Your task to perform on an android device: open a bookmark in the chrome app Image 0: 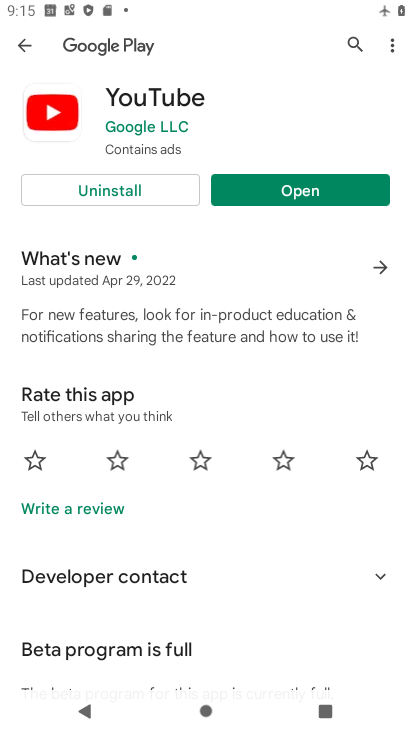
Step 0: press home button
Your task to perform on an android device: open a bookmark in the chrome app Image 1: 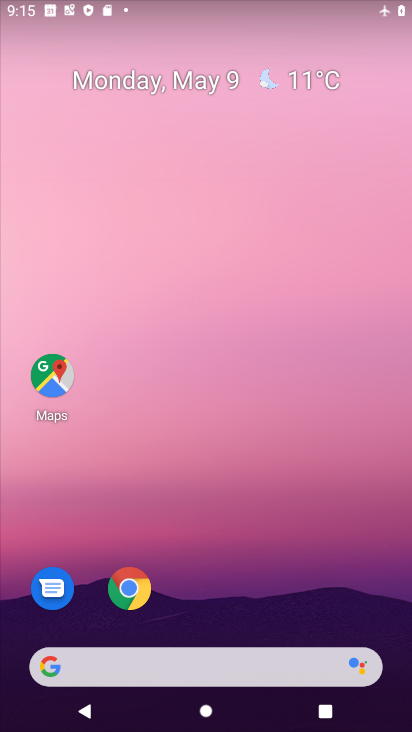
Step 1: drag from (176, 668) to (277, 321)
Your task to perform on an android device: open a bookmark in the chrome app Image 2: 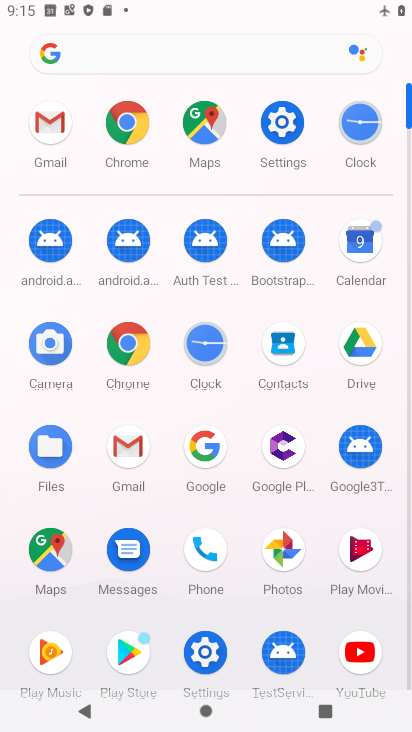
Step 2: click (126, 129)
Your task to perform on an android device: open a bookmark in the chrome app Image 3: 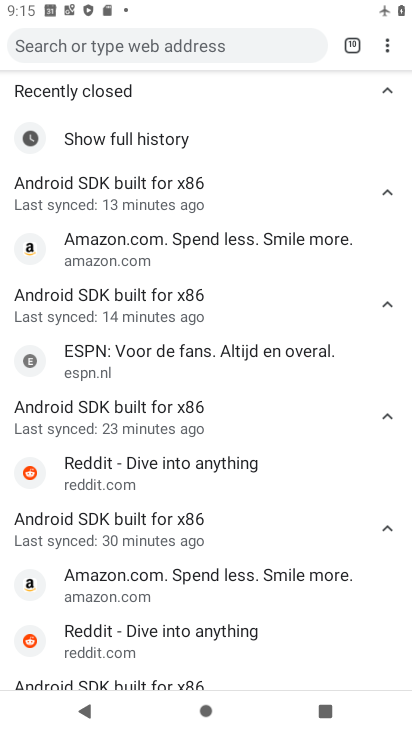
Step 3: task complete